Your task to perform on an android device: Open Wikipedia Image 0: 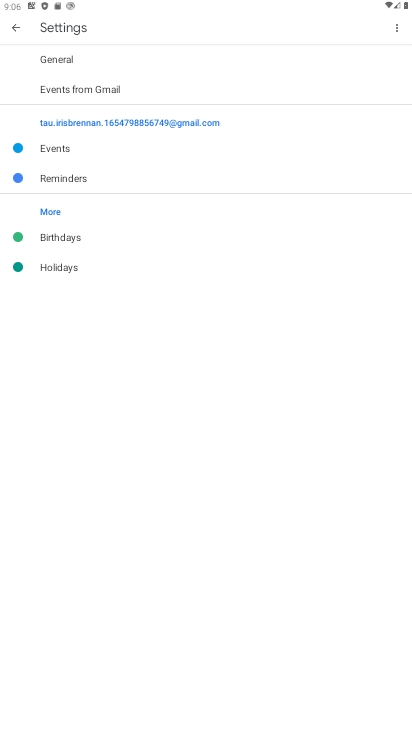
Step 0: press home button
Your task to perform on an android device: Open Wikipedia Image 1: 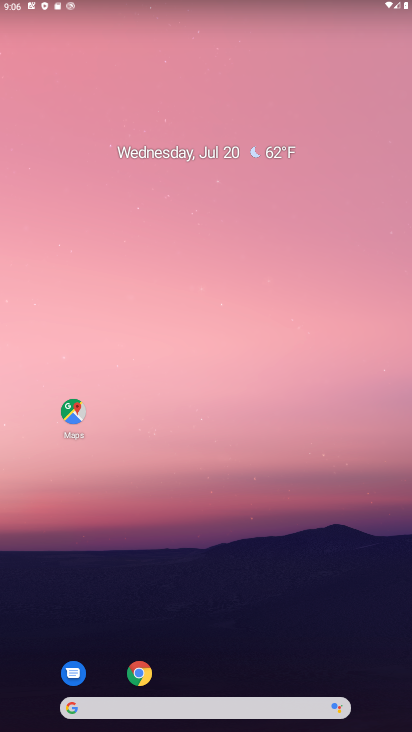
Step 1: click (135, 672)
Your task to perform on an android device: Open Wikipedia Image 2: 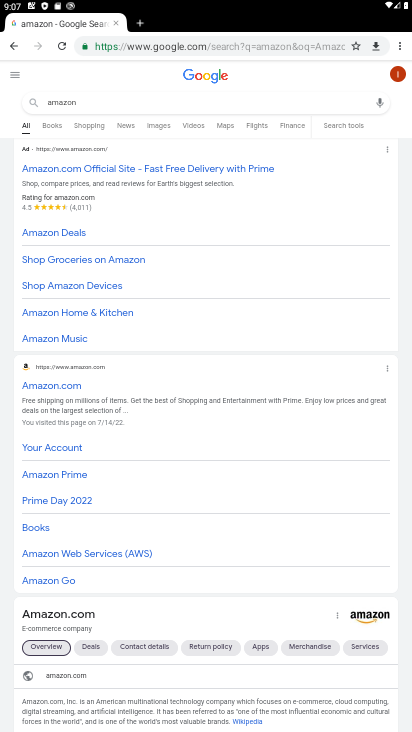
Step 2: click (272, 40)
Your task to perform on an android device: Open Wikipedia Image 3: 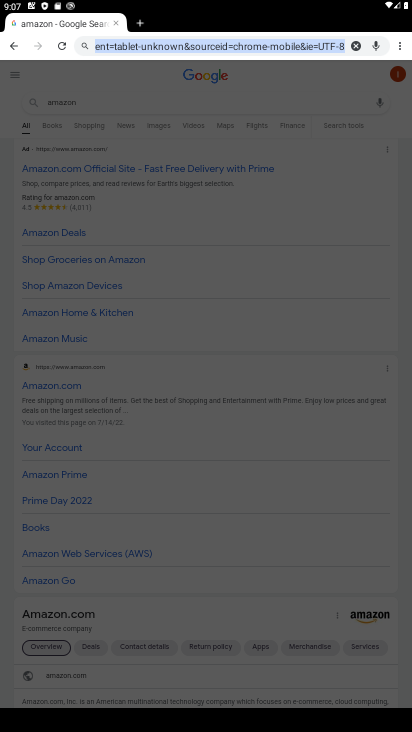
Step 3: click (352, 43)
Your task to perform on an android device: Open Wikipedia Image 4: 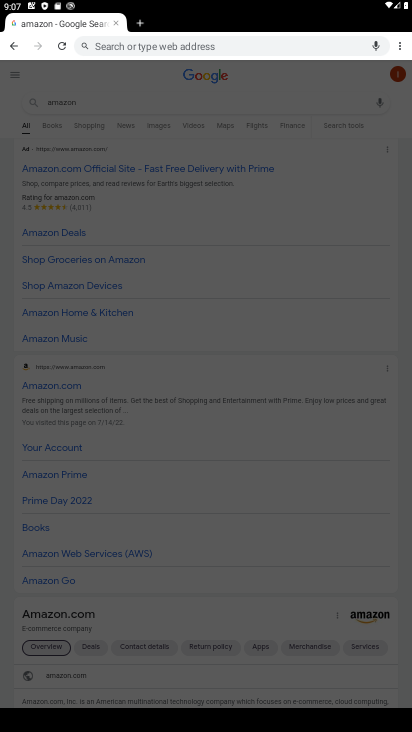
Step 4: type "Wikipedia"
Your task to perform on an android device: Open Wikipedia Image 5: 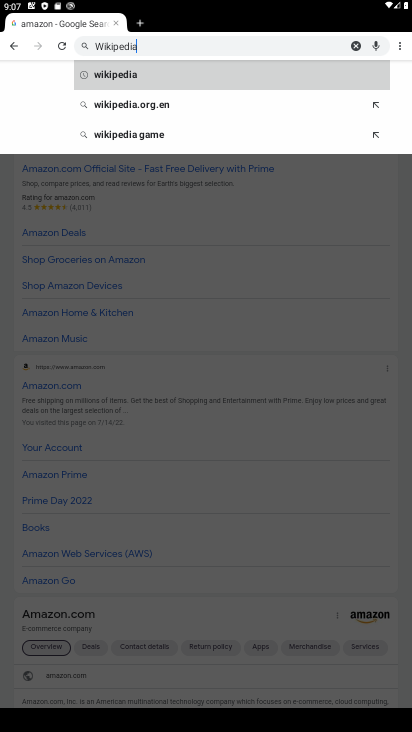
Step 5: click (171, 75)
Your task to perform on an android device: Open Wikipedia Image 6: 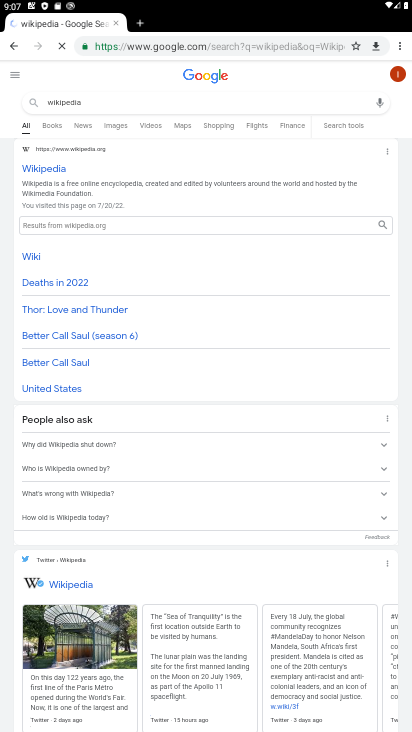
Step 6: task complete